Your task to perform on an android device: check storage Image 0: 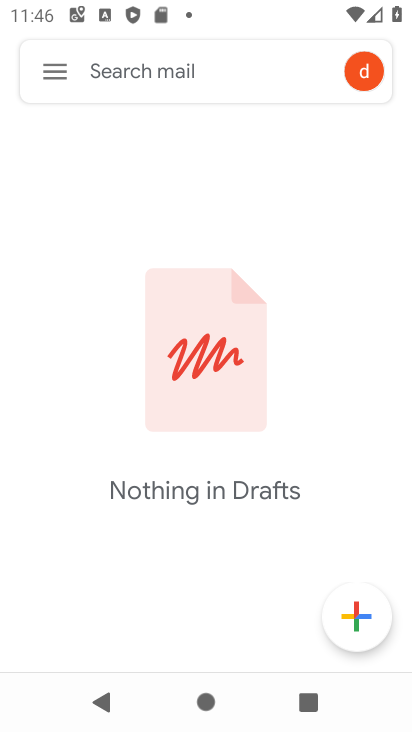
Step 0: press home button
Your task to perform on an android device: check storage Image 1: 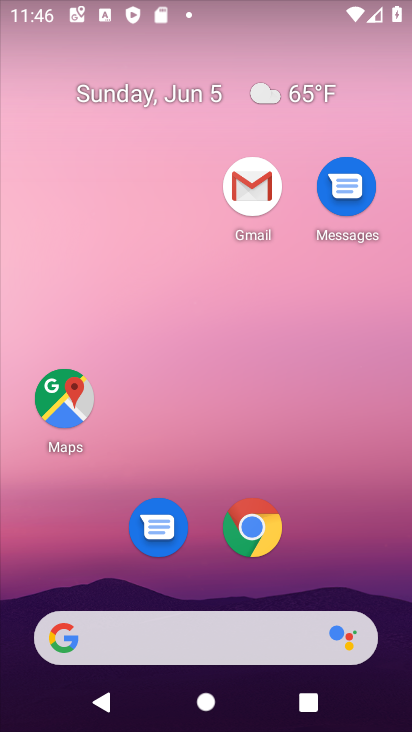
Step 1: drag from (368, 527) to (365, 220)
Your task to perform on an android device: check storage Image 2: 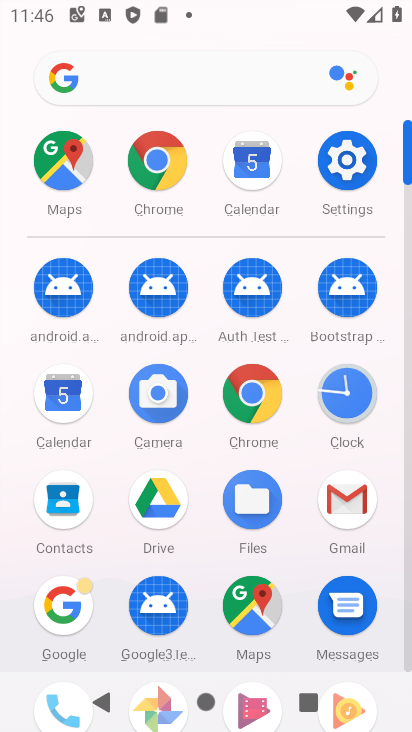
Step 2: click (348, 177)
Your task to perform on an android device: check storage Image 3: 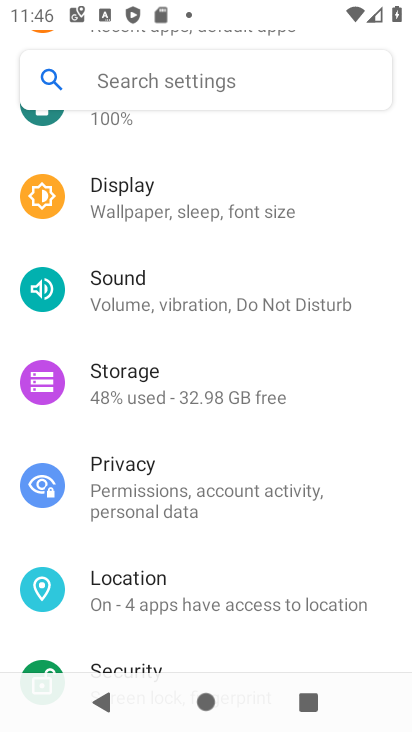
Step 3: click (158, 381)
Your task to perform on an android device: check storage Image 4: 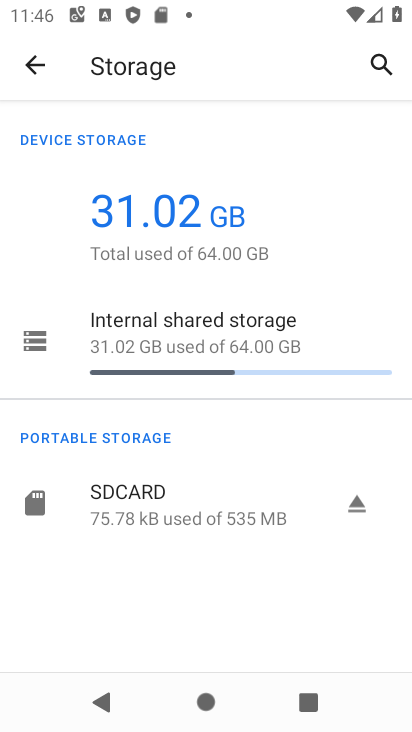
Step 4: task complete